Your task to perform on an android device: turn pop-ups on in chrome Image 0: 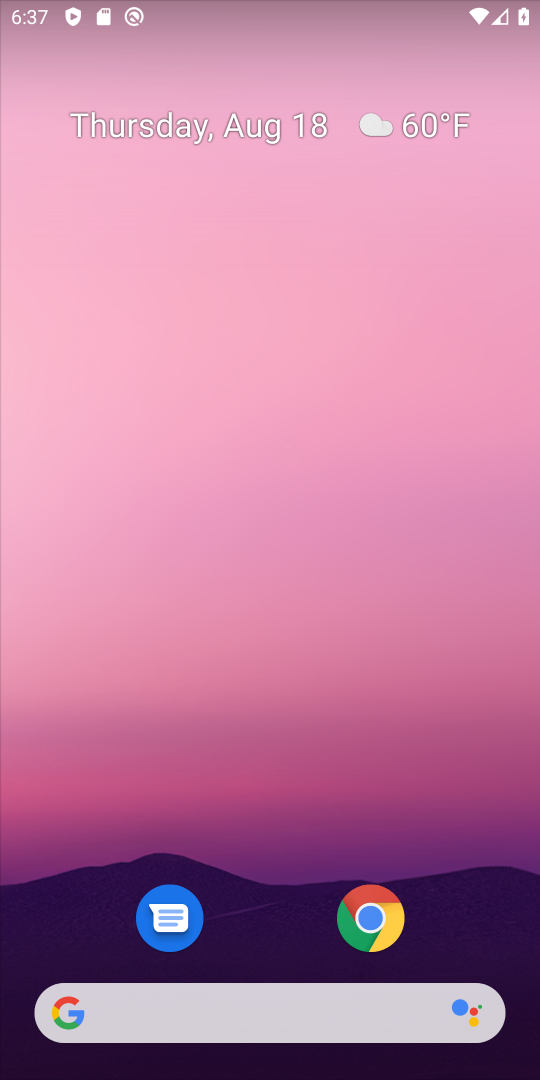
Step 0: press home button
Your task to perform on an android device: turn pop-ups on in chrome Image 1: 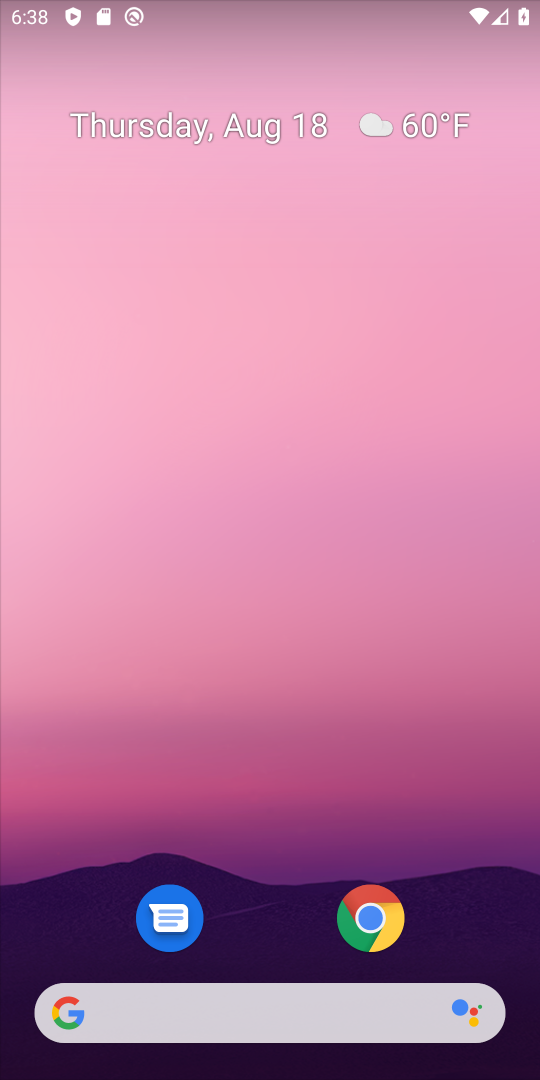
Step 1: click (369, 923)
Your task to perform on an android device: turn pop-ups on in chrome Image 2: 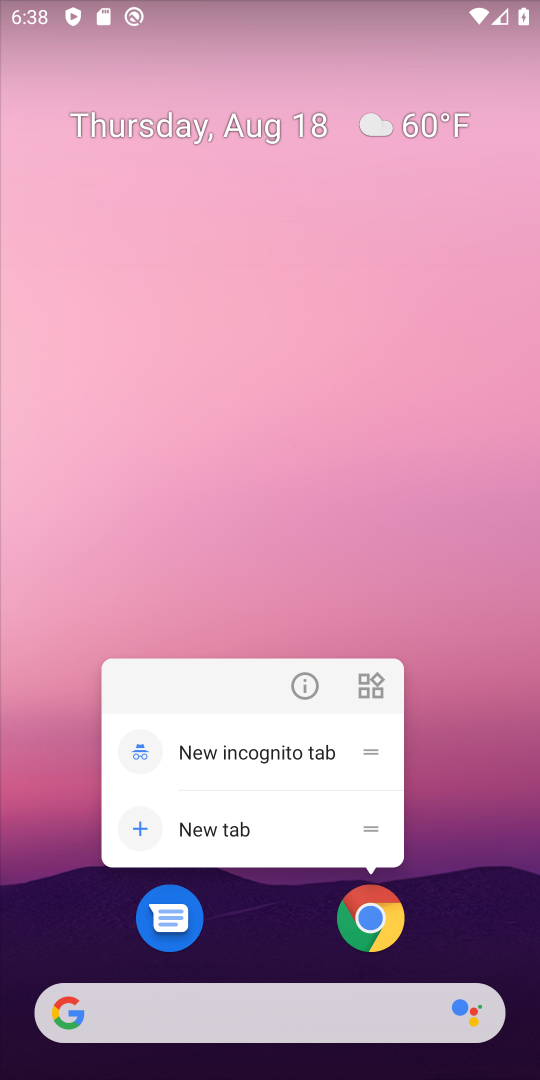
Step 2: click (372, 911)
Your task to perform on an android device: turn pop-ups on in chrome Image 3: 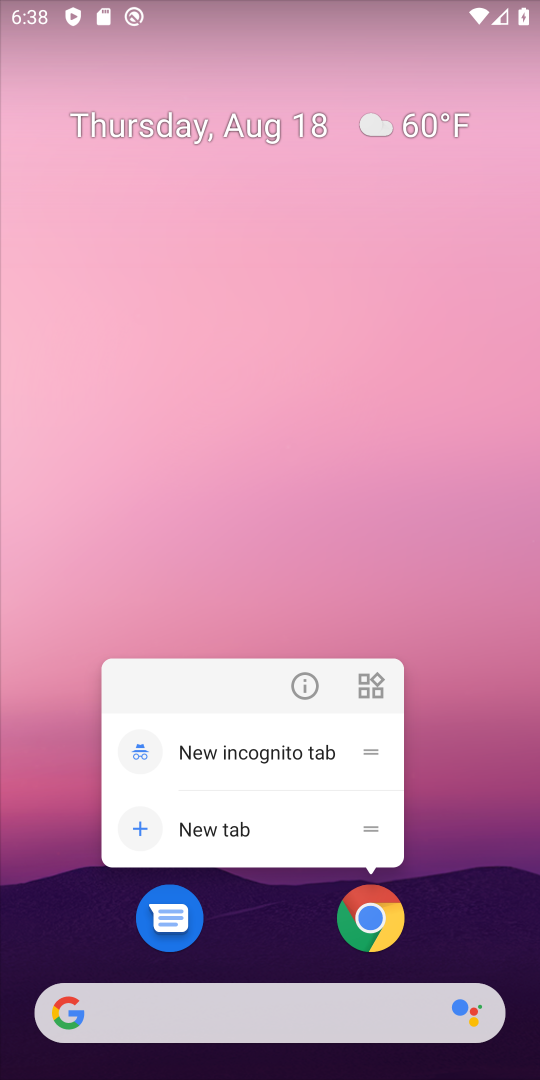
Step 3: click (372, 911)
Your task to perform on an android device: turn pop-ups on in chrome Image 4: 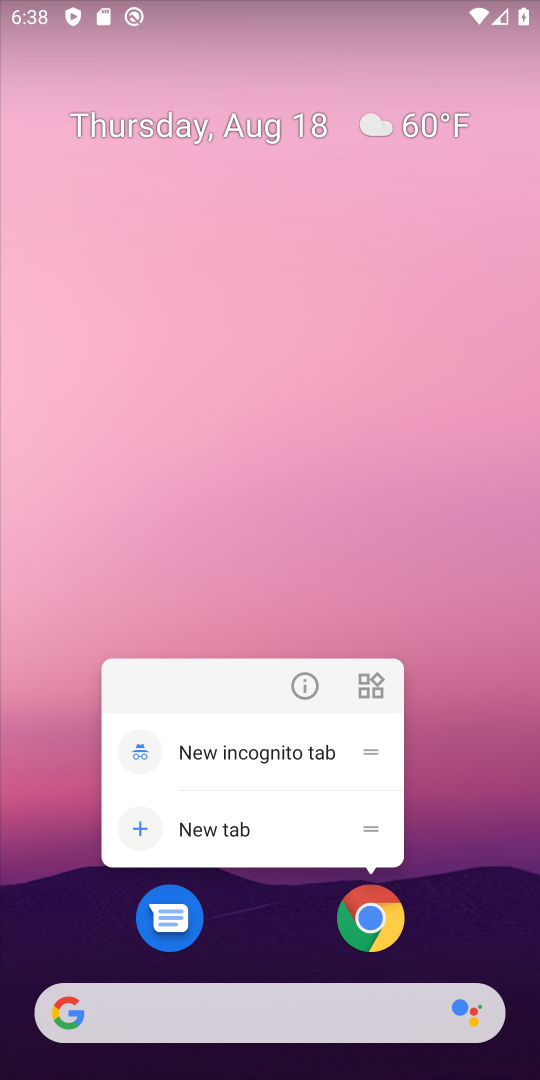
Step 4: click (385, 911)
Your task to perform on an android device: turn pop-ups on in chrome Image 5: 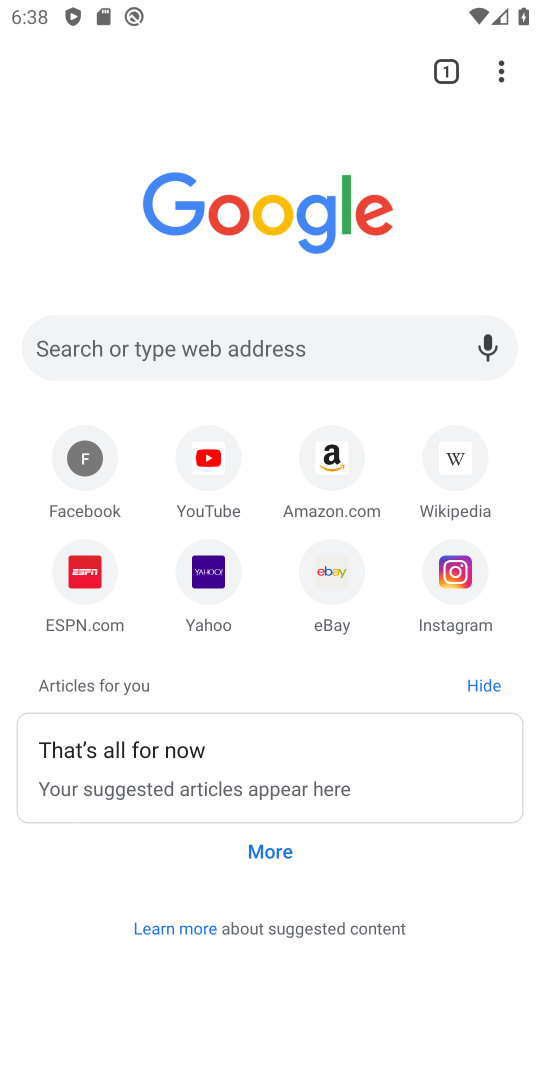
Step 5: drag from (501, 70) to (230, 590)
Your task to perform on an android device: turn pop-ups on in chrome Image 6: 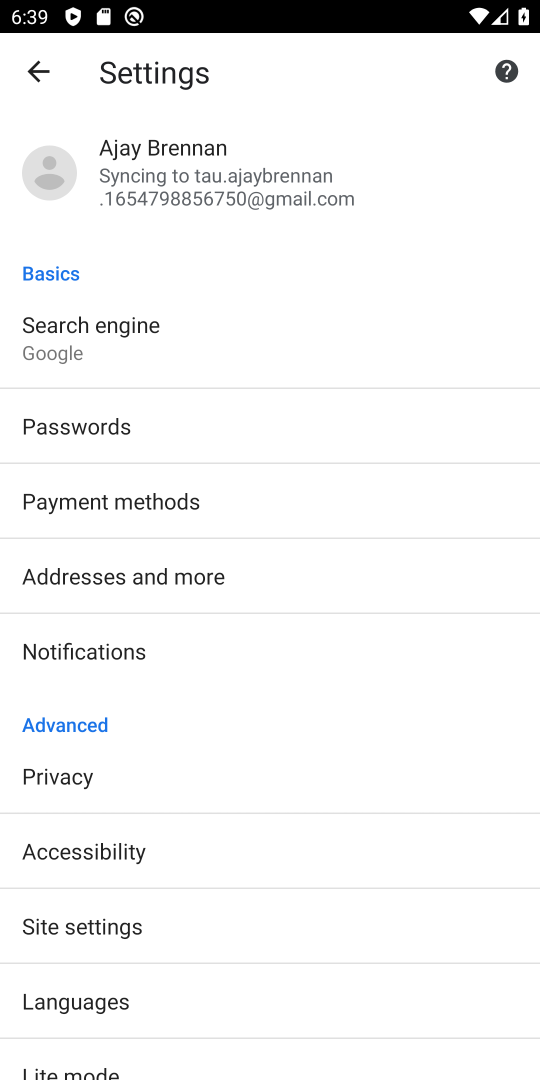
Step 6: click (72, 927)
Your task to perform on an android device: turn pop-ups on in chrome Image 7: 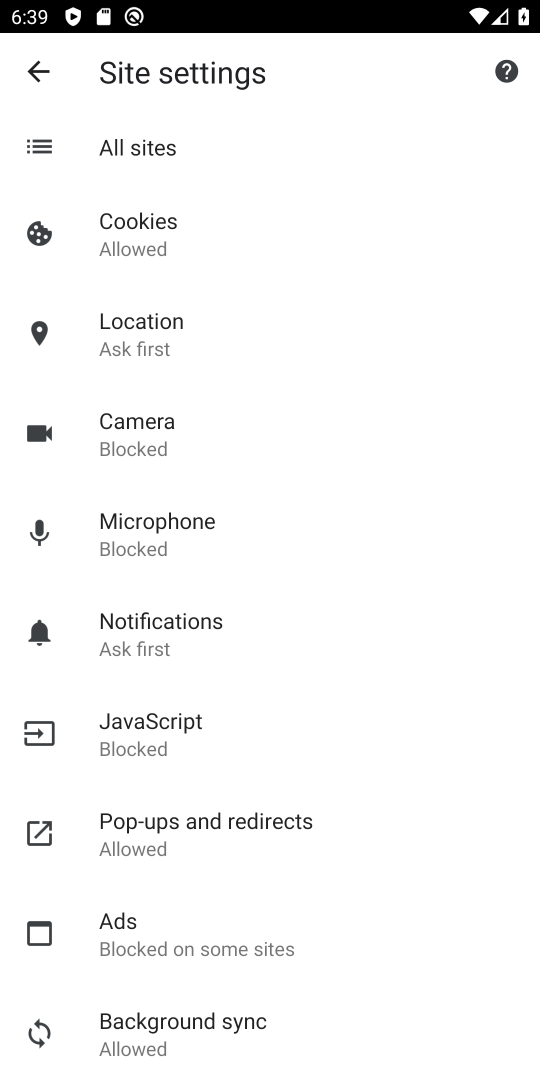
Step 7: click (136, 812)
Your task to perform on an android device: turn pop-ups on in chrome Image 8: 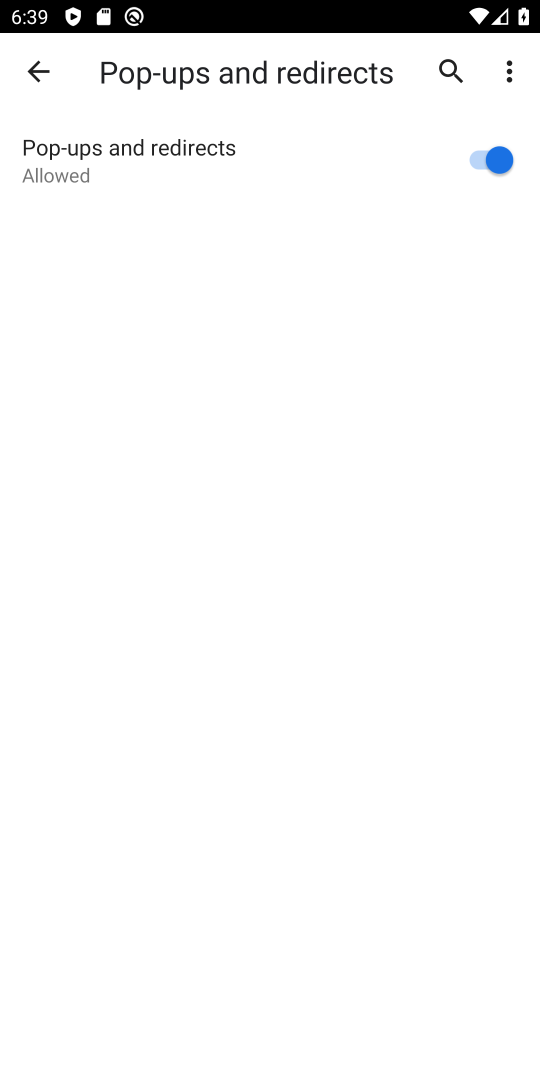
Step 8: task complete